Your task to perform on an android device: add a label to a message in the gmail app Image 0: 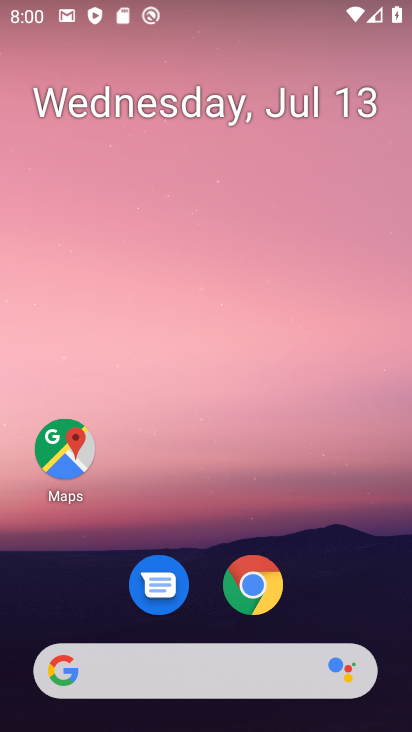
Step 0: drag from (226, 544) to (239, 114)
Your task to perform on an android device: add a label to a message in the gmail app Image 1: 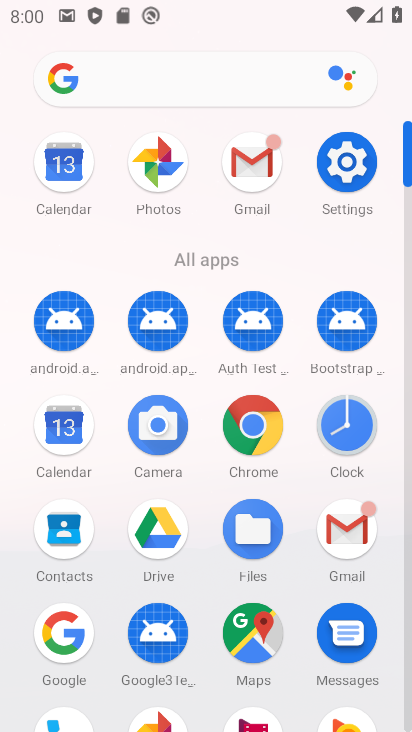
Step 1: click (252, 172)
Your task to perform on an android device: add a label to a message in the gmail app Image 2: 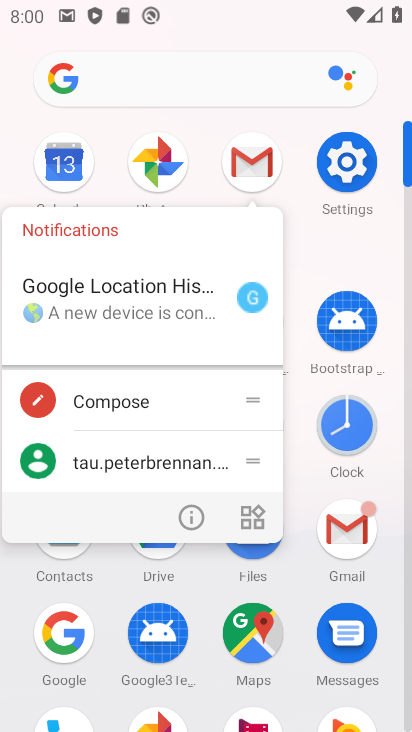
Step 2: click (252, 173)
Your task to perform on an android device: add a label to a message in the gmail app Image 3: 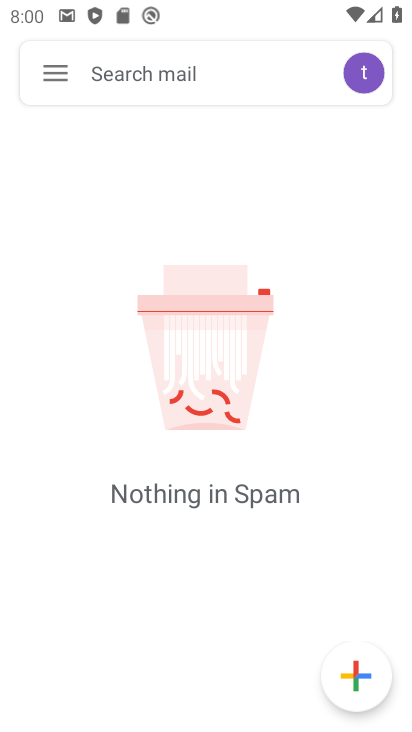
Step 3: click (53, 61)
Your task to perform on an android device: add a label to a message in the gmail app Image 4: 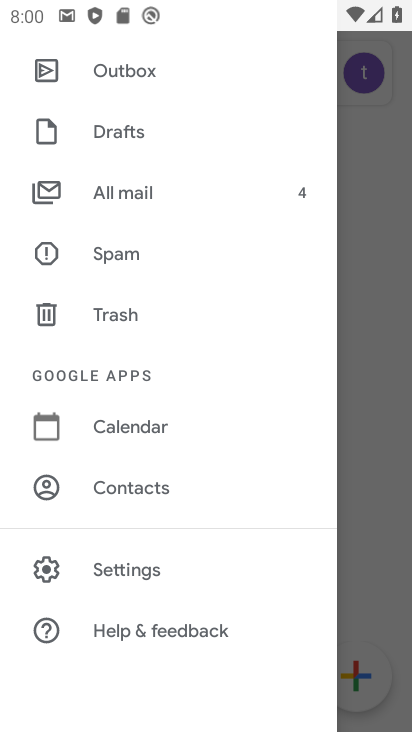
Step 4: click (118, 189)
Your task to perform on an android device: add a label to a message in the gmail app Image 5: 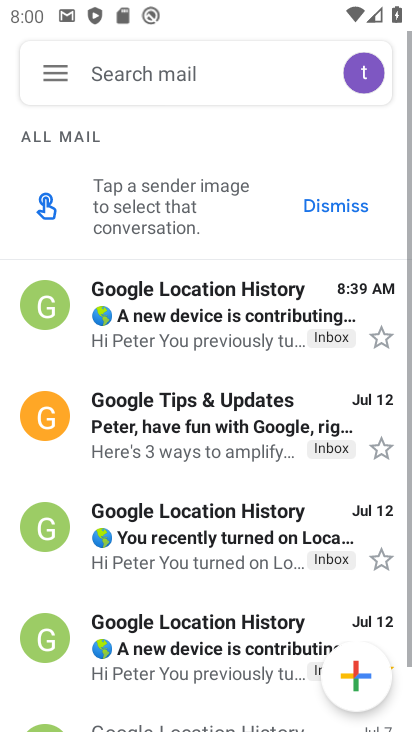
Step 5: drag from (211, 583) to (238, 269)
Your task to perform on an android device: add a label to a message in the gmail app Image 6: 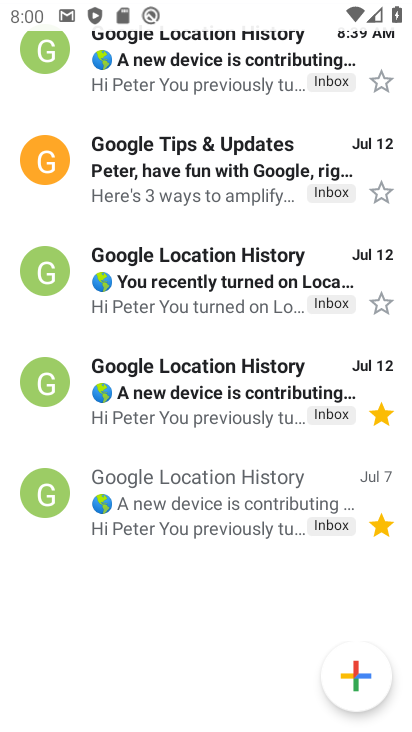
Step 6: click (227, 496)
Your task to perform on an android device: add a label to a message in the gmail app Image 7: 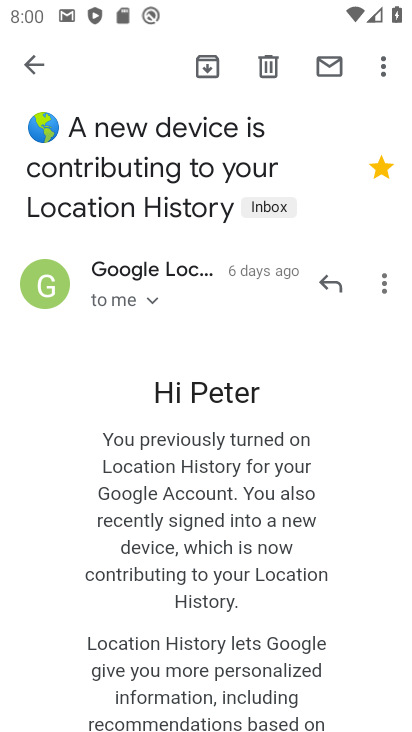
Step 7: click (381, 66)
Your task to perform on an android device: add a label to a message in the gmail app Image 8: 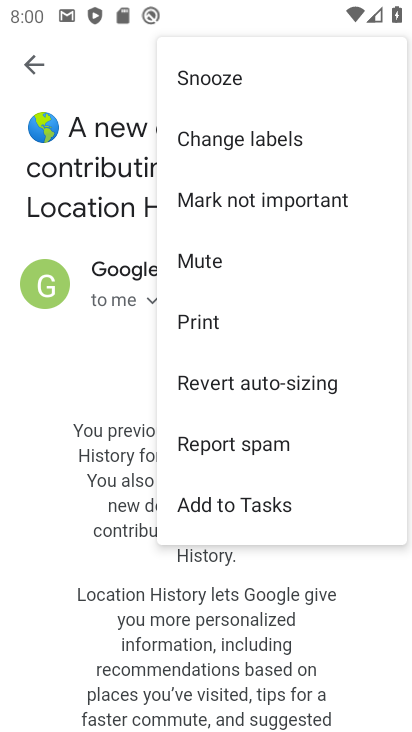
Step 8: click (301, 134)
Your task to perform on an android device: add a label to a message in the gmail app Image 9: 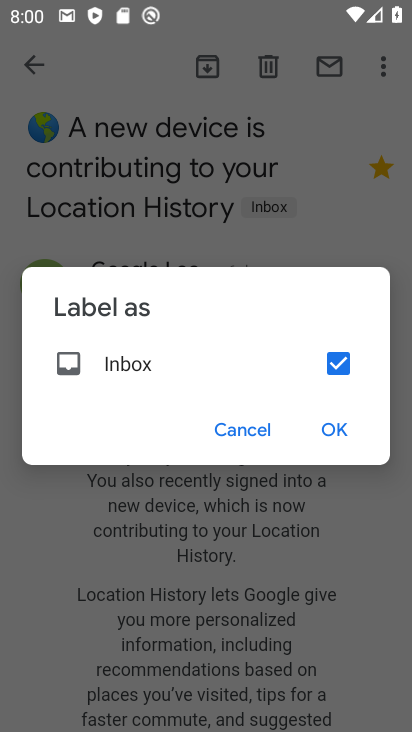
Step 9: click (339, 364)
Your task to perform on an android device: add a label to a message in the gmail app Image 10: 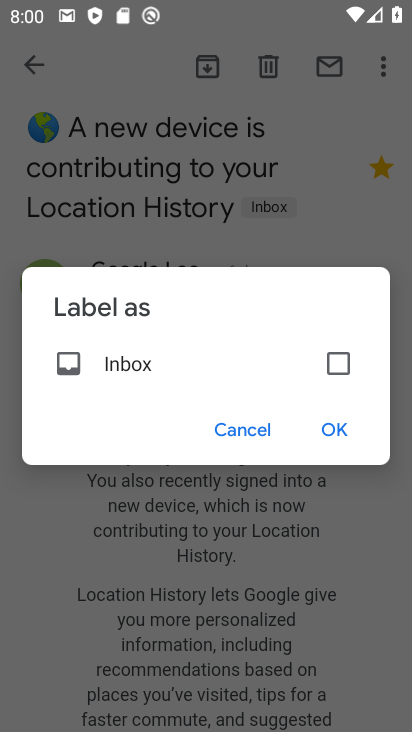
Step 10: click (334, 431)
Your task to perform on an android device: add a label to a message in the gmail app Image 11: 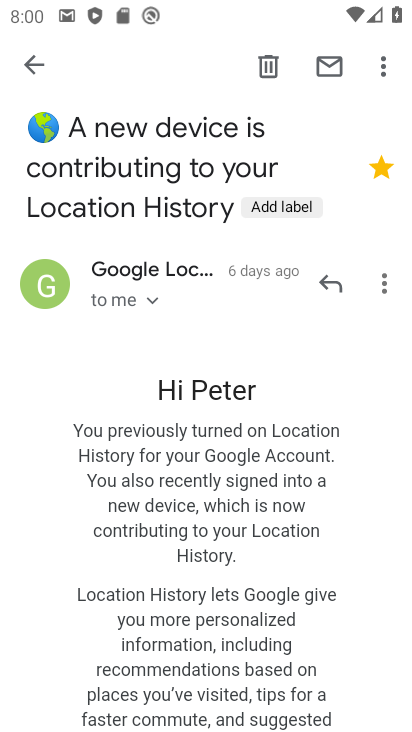
Step 11: task complete